Your task to perform on an android device: set the timer Image 0: 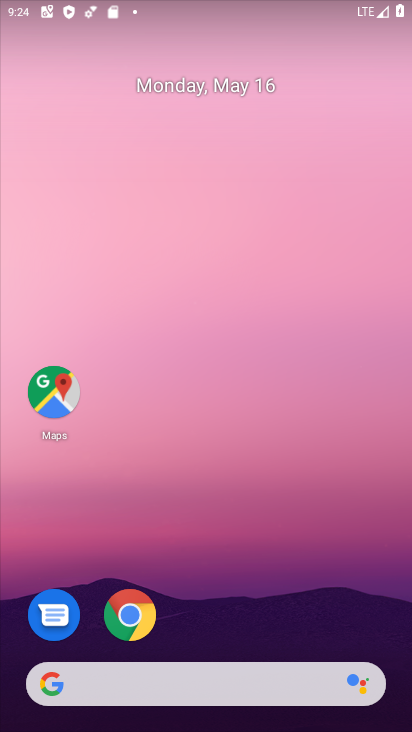
Step 0: drag from (216, 635) to (190, 287)
Your task to perform on an android device: set the timer Image 1: 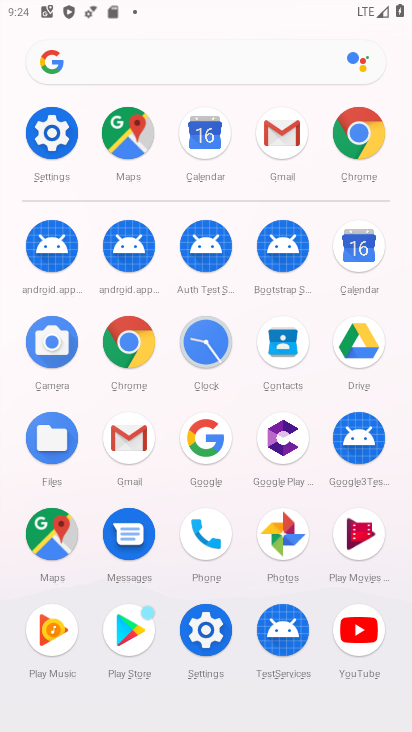
Step 1: click (209, 363)
Your task to perform on an android device: set the timer Image 2: 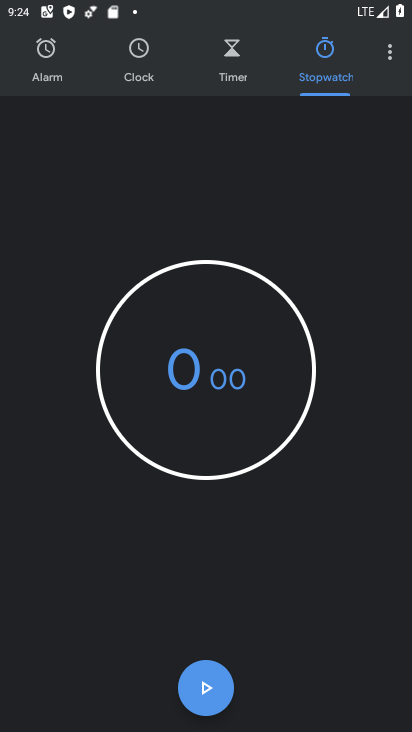
Step 2: click (245, 77)
Your task to perform on an android device: set the timer Image 3: 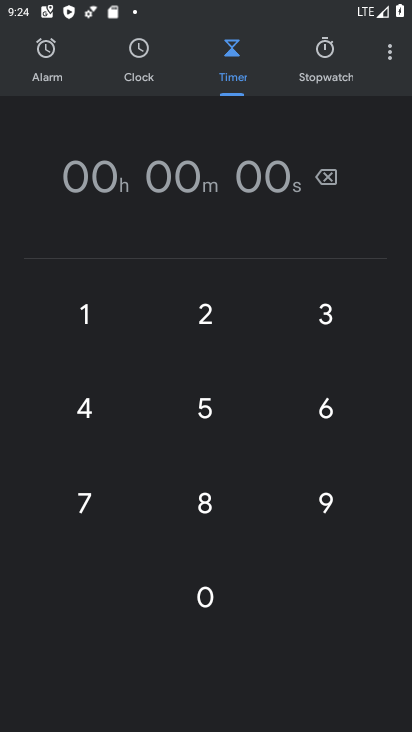
Step 3: click (203, 397)
Your task to perform on an android device: set the timer Image 4: 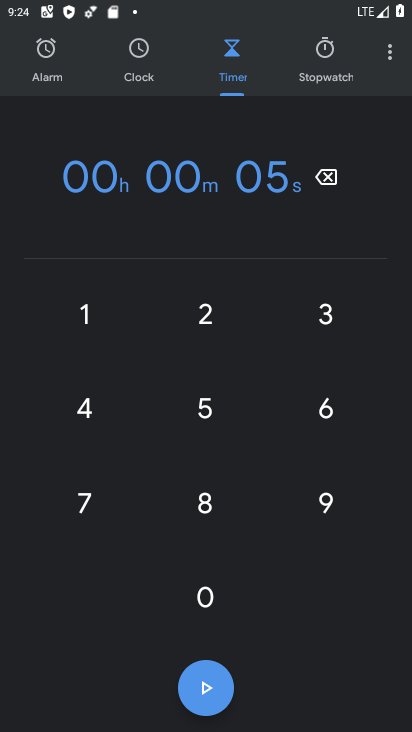
Step 4: click (205, 702)
Your task to perform on an android device: set the timer Image 5: 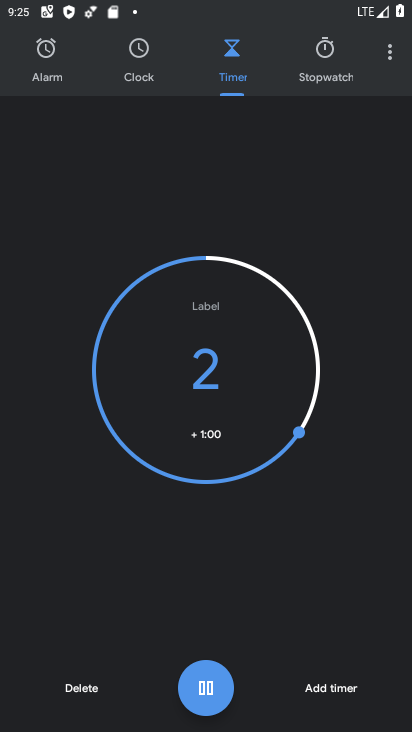
Step 5: task complete